Your task to perform on an android device: Open Google Chrome and open the bookmarks view Image 0: 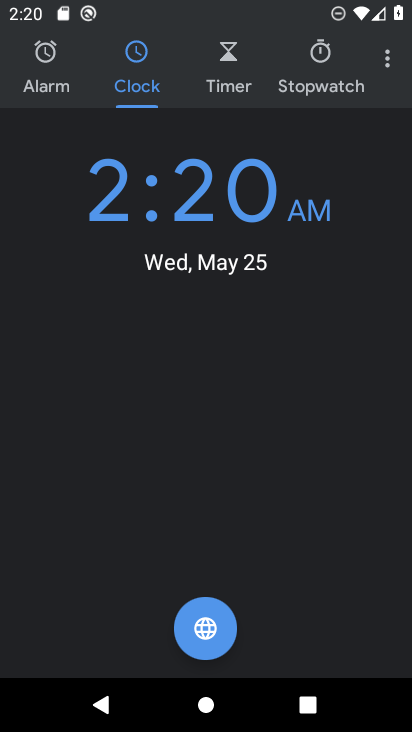
Step 0: press home button
Your task to perform on an android device: Open Google Chrome and open the bookmarks view Image 1: 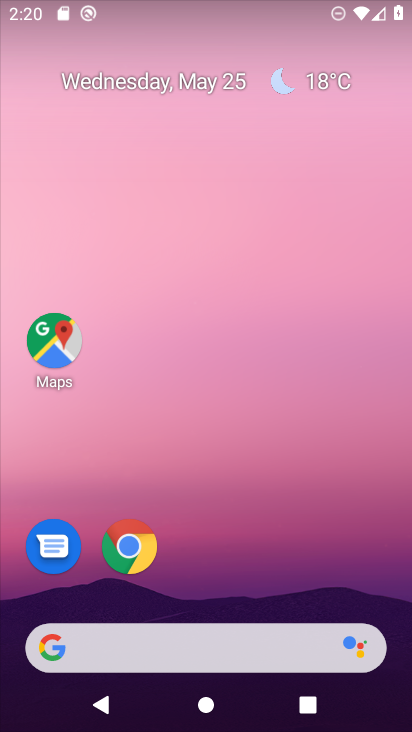
Step 1: click (137, 545)
Your task to perform on an android device: Open Google Chrome and open the bookmarks view Image 2: 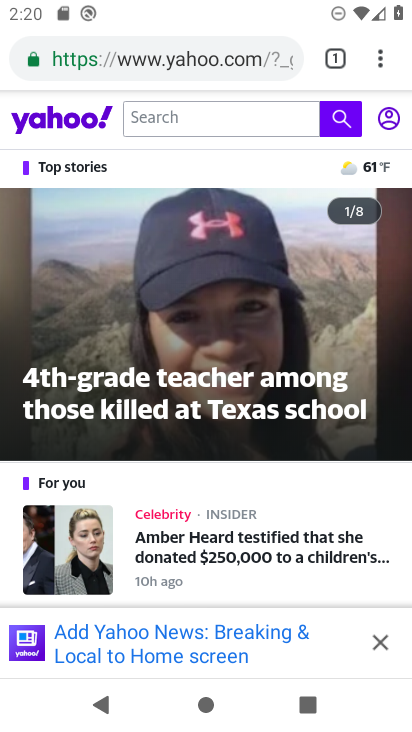
Step 2: click (369, 53)
Your task to perform on an android device: Open Google Chrome and open the bookmarks view Image 3: 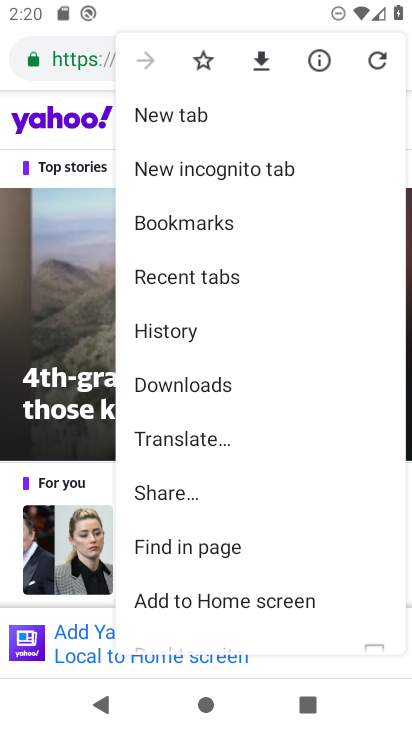
Step 3: click (202, 225)
Your task to perform on an android device: Open Google Chrome and open the bookmarks view Image 4: 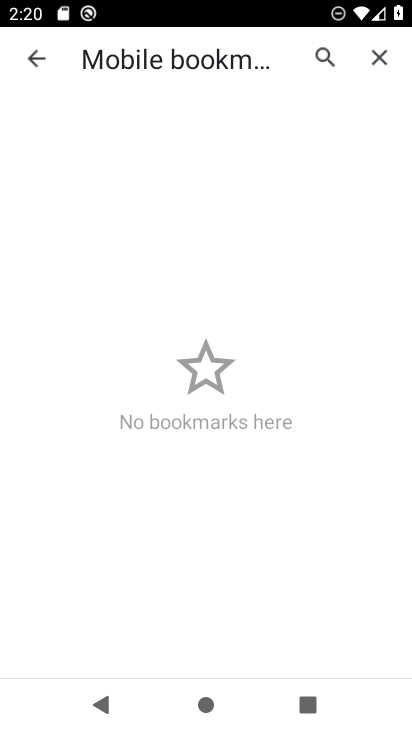
Step 4: task complete